Your task to perform on an android device: Go to notification settings Image 0: 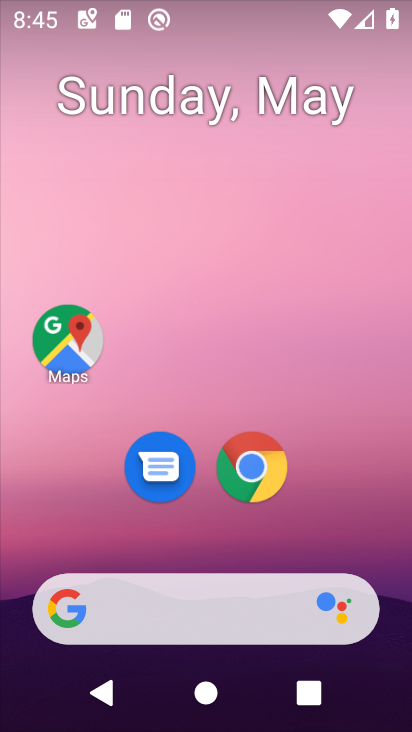
Step 0: drag from (368, 514) to (392, 109)
Your task to perform on an android device: Go to notification settings Image 1: 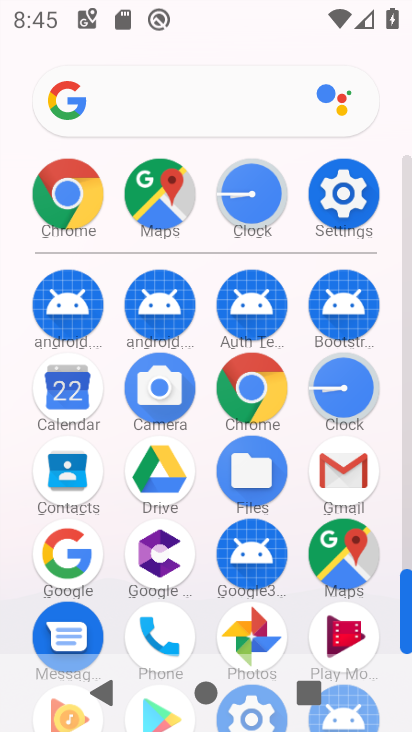
Step 1: click (356, 190)
Your task to perform on an android device: Go to notification settings Image 2: 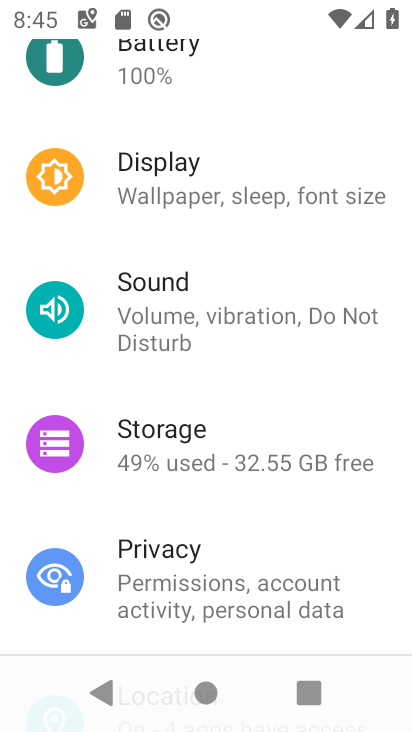
Step 2: drag from (306, 202) to (291, 582)
Your task to perform on an android device: Go to notification settings Image 3: 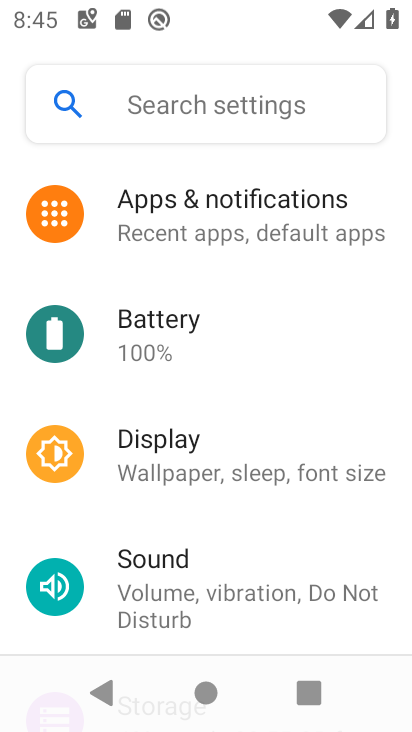
Step 3: drag from (317, 275) to (303, 586)
Your task to perform on an android device: Go to notification settings Image 4: 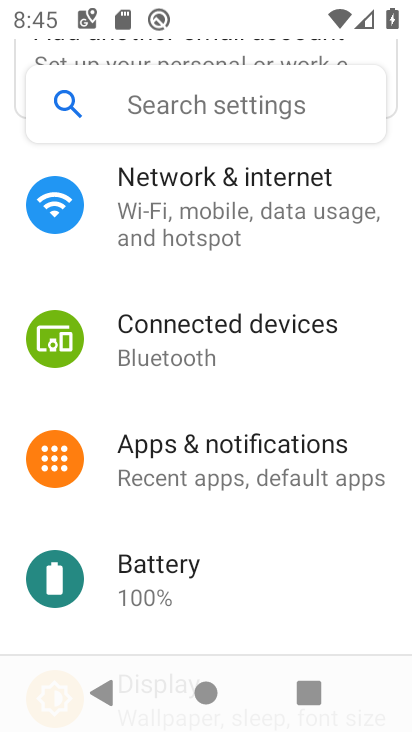
Step 4: click (300, 460)
Your task to perform on an android device: Go to notification settings Image 5: 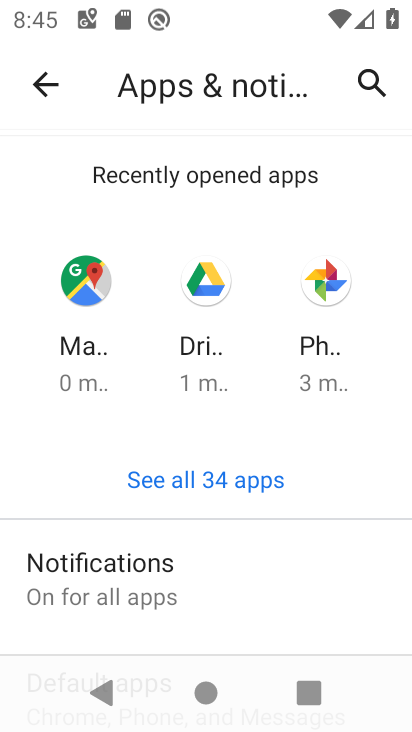
Step 5: click (166, 583)
Your task to perform on an android device: Go to notification settings Image 6: 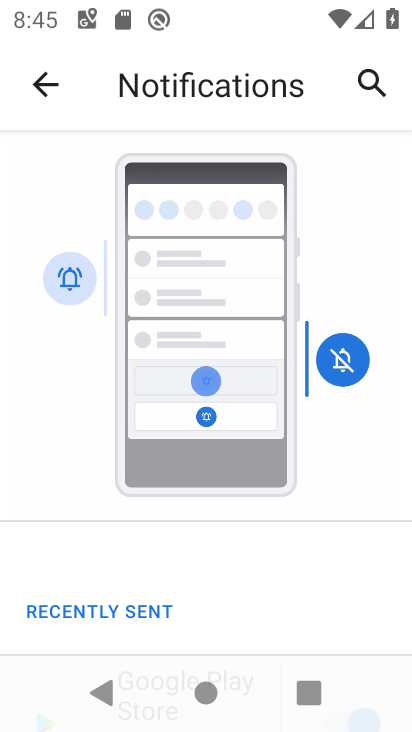
Step 6: drag from (299, 603) to (349, 190)
Your task to perform on an android device: Go to notification settings Image 7: 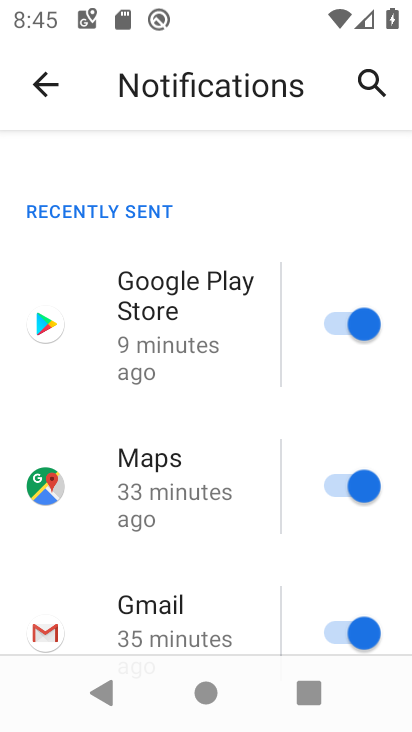
Step 7: drag from (237, 630) to (291, 221)
Your task to perform on an android device: Go to notification settings Image 8: 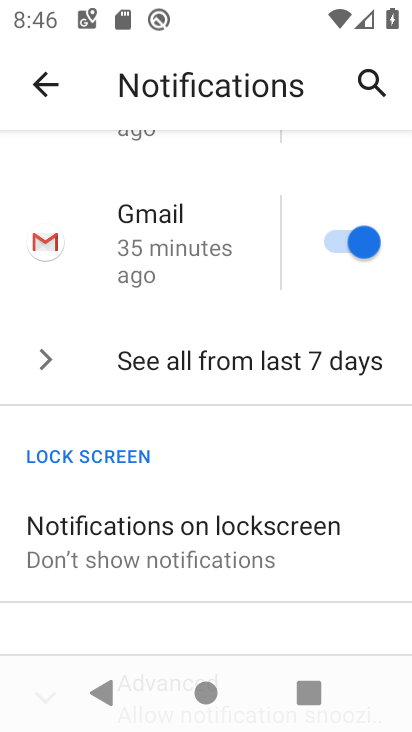
Step 8: drag from (240, 267) to (229, 553)
Your task to perform on an android device: Go to notification settings Image 9: 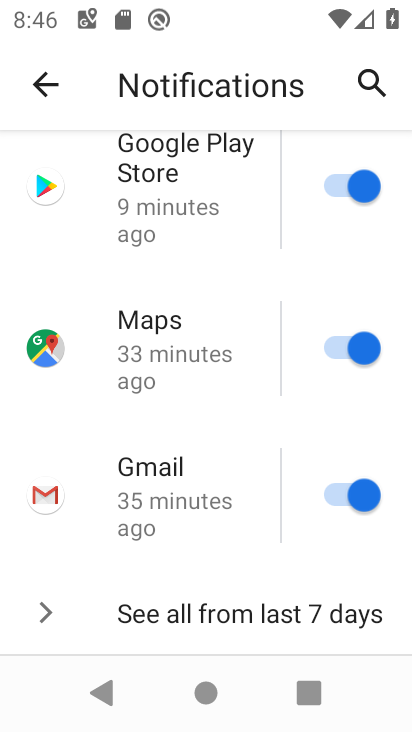
Step 9: drag from (227, 238) to (253, 684)
Your task to perform on an android device: Go to notification settings Image 10: 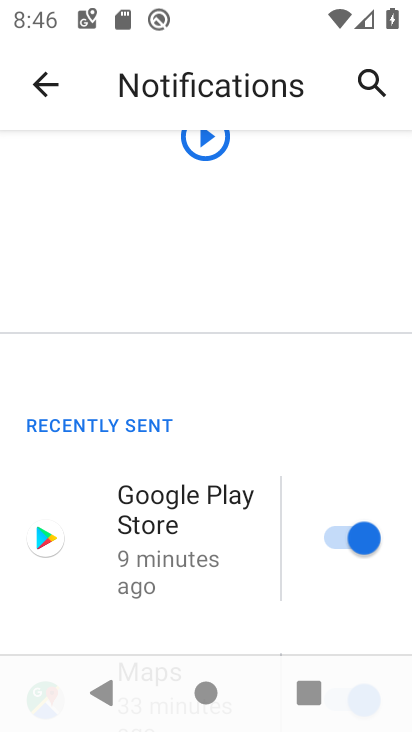
Step 10: drag from (240, 234) to (221, 583)
Your task to perform on an android device: Go to notification settings Image 11: 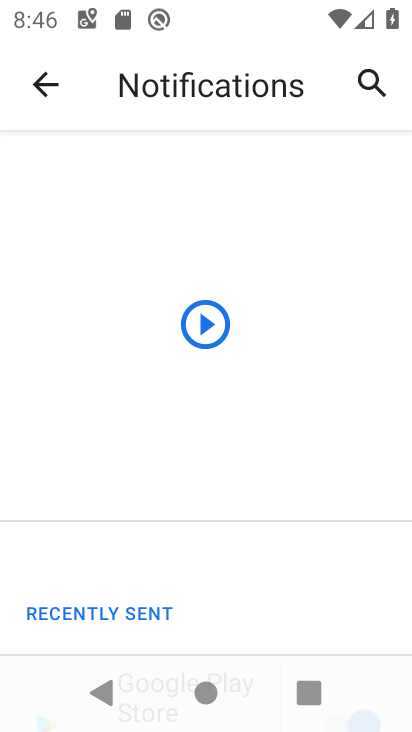
Step 11: drag from (225, 565) to (283, 210)
Your task to perform on an android device: Go to notification settings Image 12: 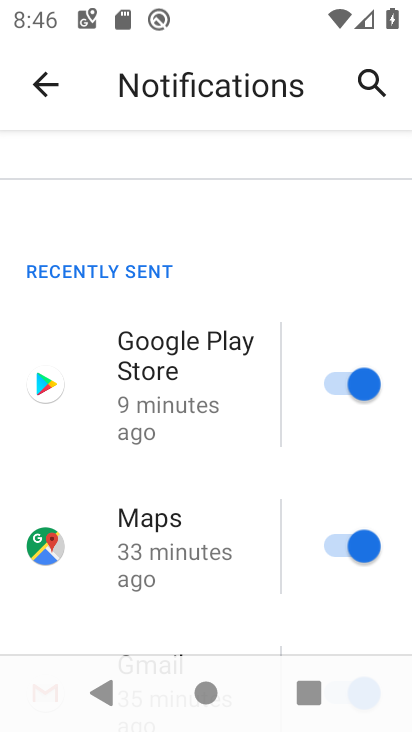
Step 12: drag from (191, 577) to (269, 232)
Your task to perform on an android device: Go to notification settings Image 13: 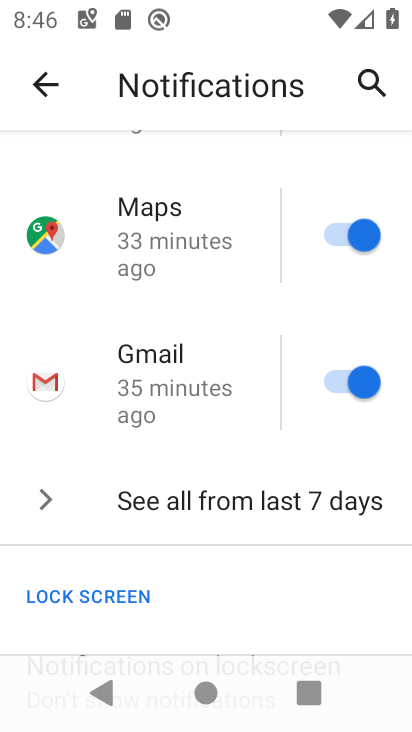
Step 13: drag from (198, 557) to (243, 228)
Your task to perform on an android device: Go to notification settings Image 14: 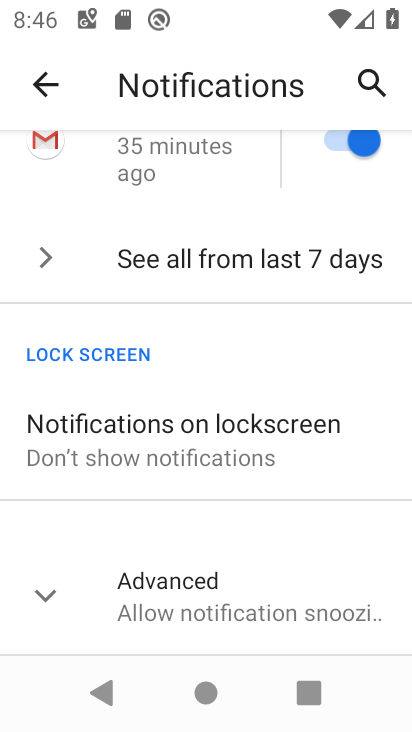
Step 14: drag from (237, 596) to (272, 251)
Your task to perform on an android device: Go to notification settings Image 15: 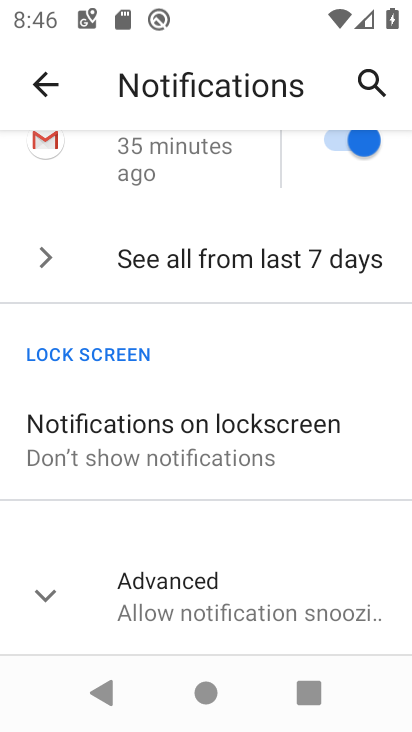
Step 15: click (255, 445)
Your task to perform on an android device: Go to notification settings Image 16: 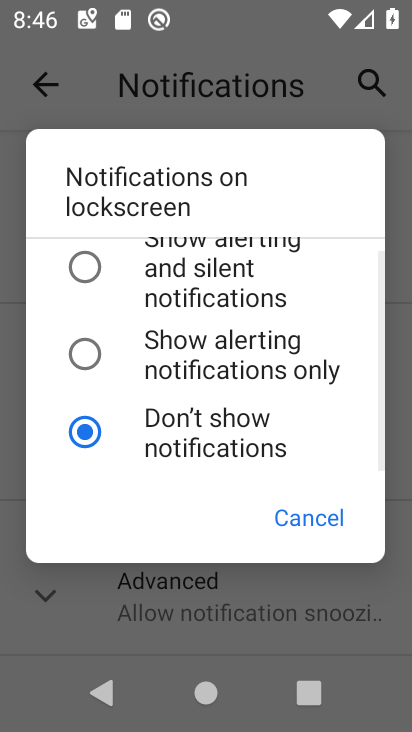
Step 16: click (296, 517)
Your task to perform on an android device: Go to notification settings Image 17: 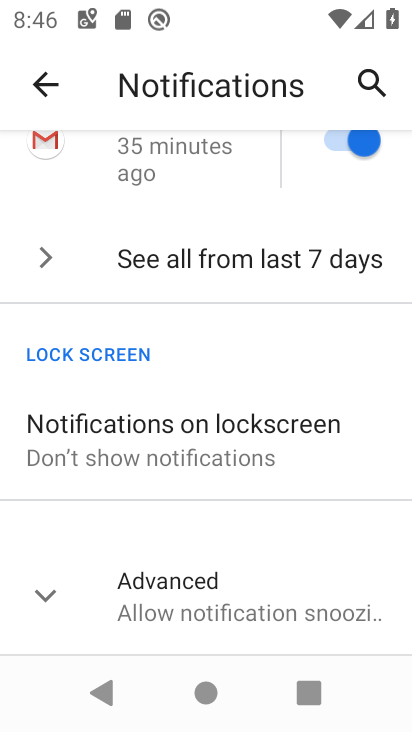
Step 17: drag from (119, 201) to (114, 598)
Your task to perform on an android device: Go to notification settings Image 18: 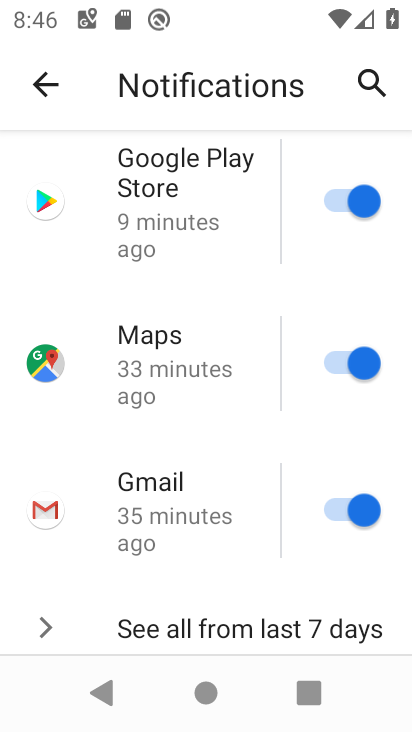
Step 18: drag from (191, 590) to (243, 248)
Your task to perform on an android device: Go to notification settings Image 19: 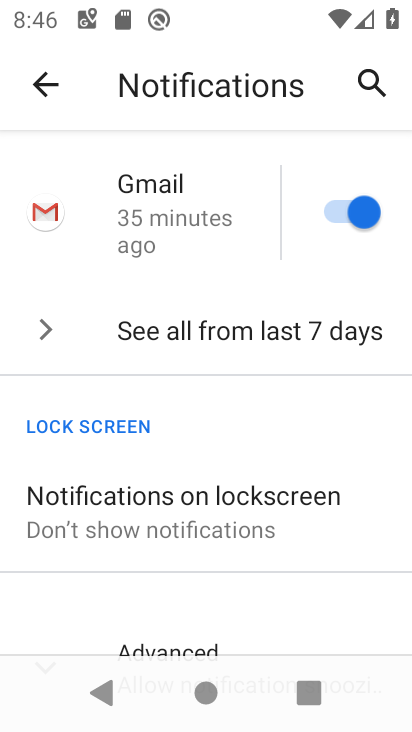
Step 19: click (210, 498)
Your task to perform on an android device: Go to notification settings Image 20: 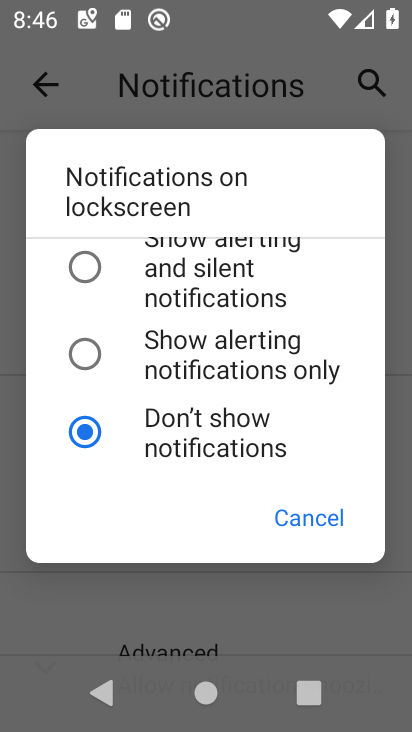
Step 20: click (303, 505)
Your task to perform on an android device: Go to notification settings Image 21: 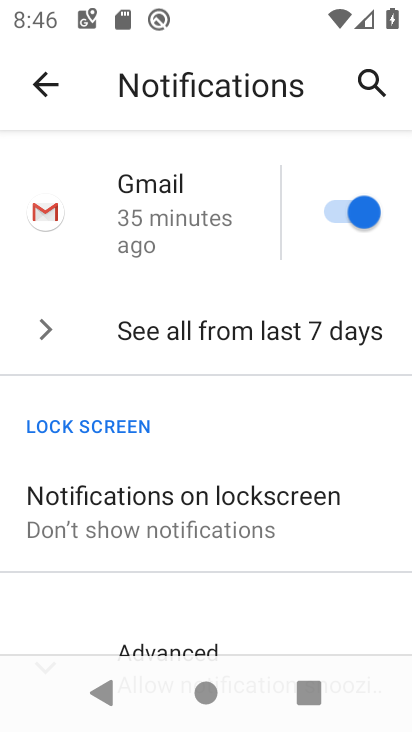
Step 21: task complete